Your task to perform on an android device: Open calendar and show me the fourth week of next month Image 0: 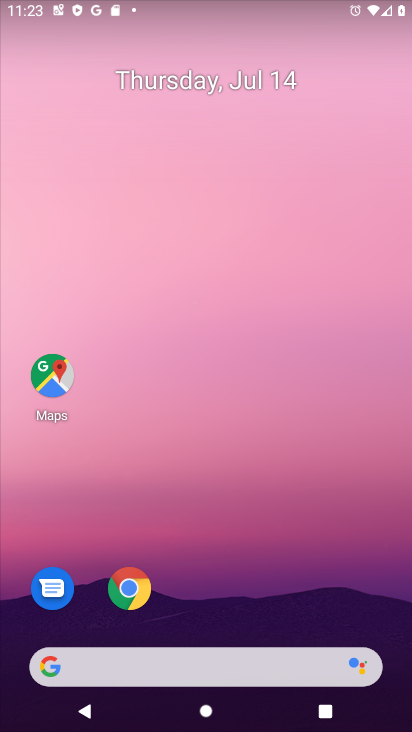
Step 0: drag from (286, 581) to (333, 61)
Your task to perform on an android device: Open calendar and show me the fourth week of next month Image 1: 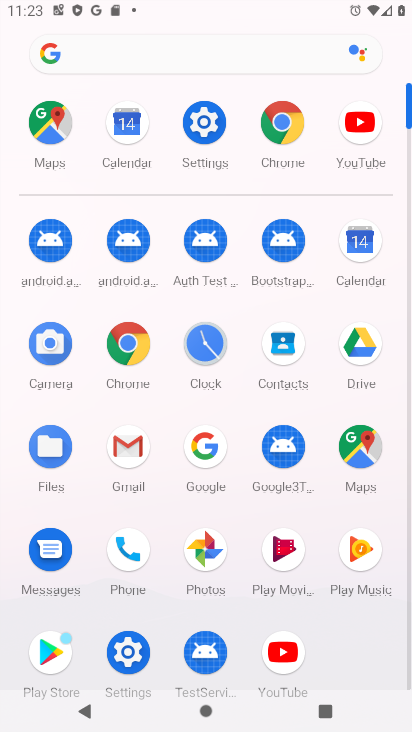
Step 1: click (366, 231)
Your task to perform on an android device: Open calendar and show me the fourth week of next month Image 2: 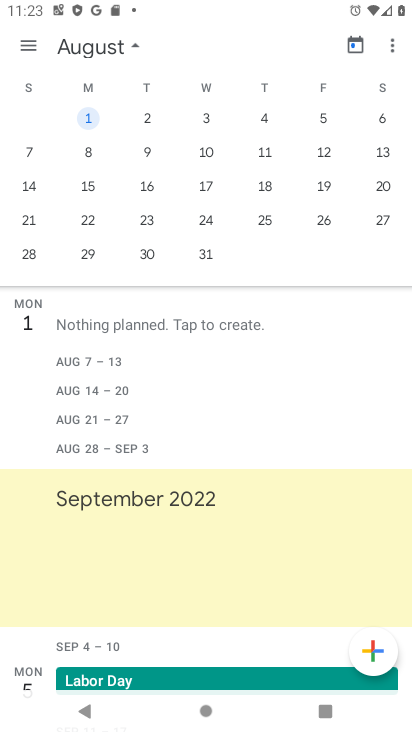
Step 2: drag from (33, 121) to (404, 159)
Your task to perform on an android device: Open calendar and show me the fourth week of next month Image 3: 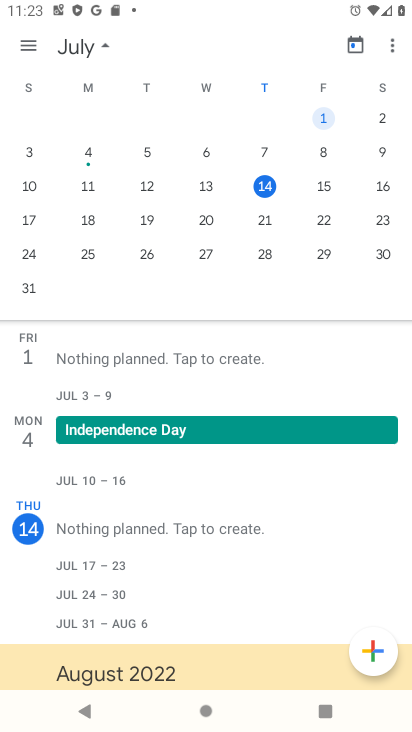
Step 3: click (275, 180)
Your task to perform on an android device: Open calendar and show me the fourth week of next month Image 4: 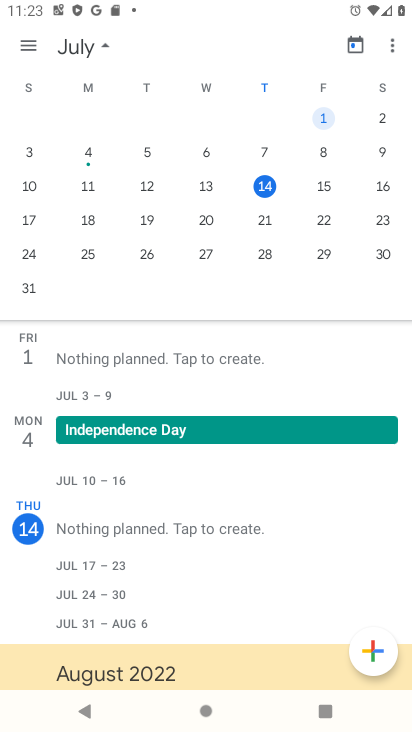
Step 4: drag from (373, 180) to (0, 141)
Your task to perform on an android device: Open calendar and show me the fourth week of next month Image 5: 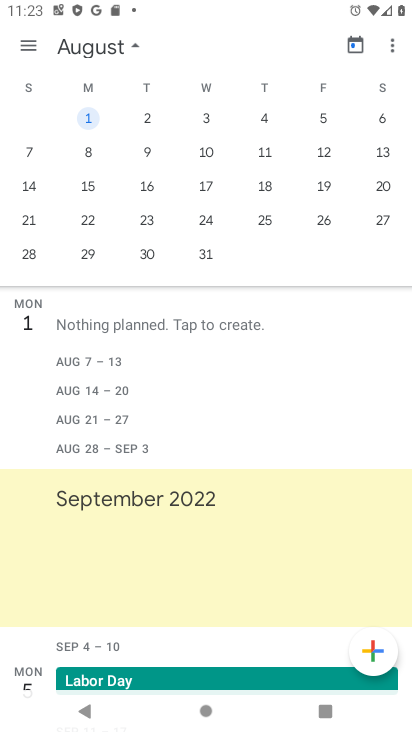
Step 5: click (148, 245)
Your task to perform on an android device: Open calendar and show me the fourth week of next month Image 6: 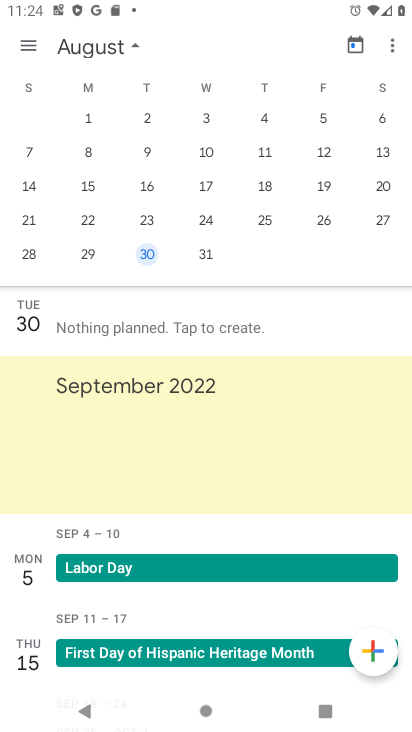
Step 6: task complete